Your task to perform on an android device: turn notification dots off Image 0: 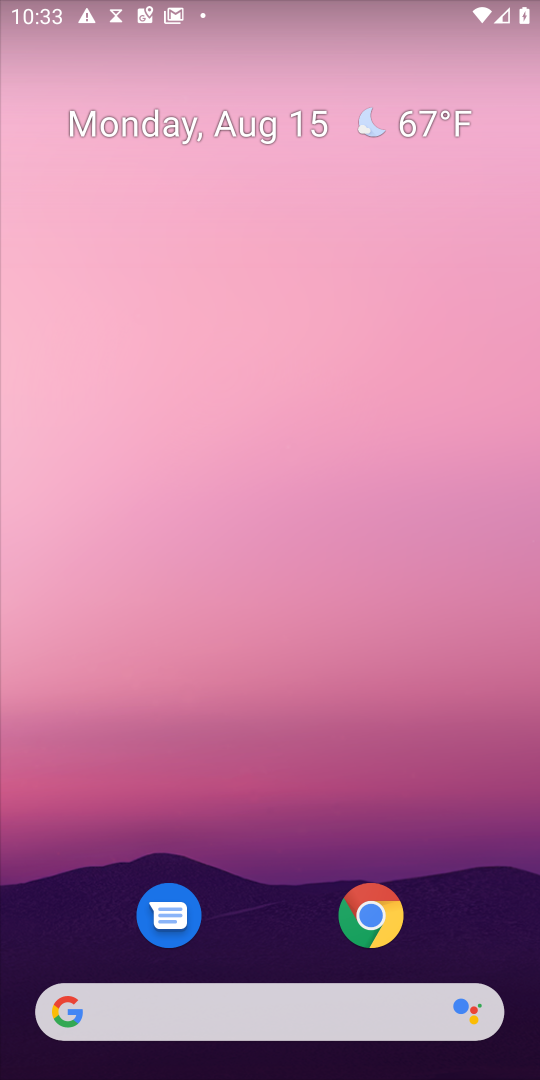
Step 0: press home button
Your task to perform on an android device: turn notification dots off Image 1: 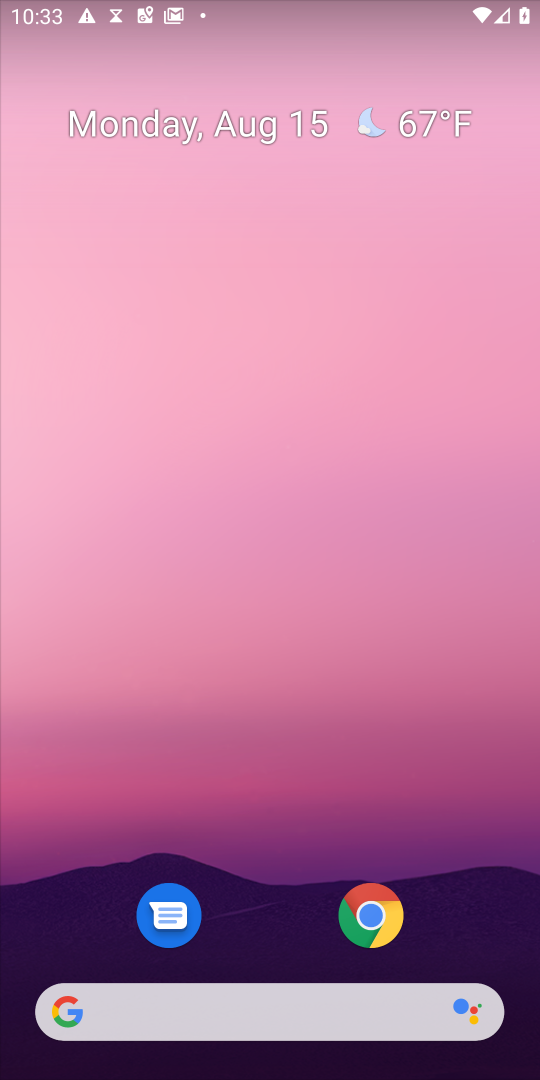
Step 1: drag from (272, 776) to (286, 241)
Your task to perform on an android device: turn notification dots off Image 2: 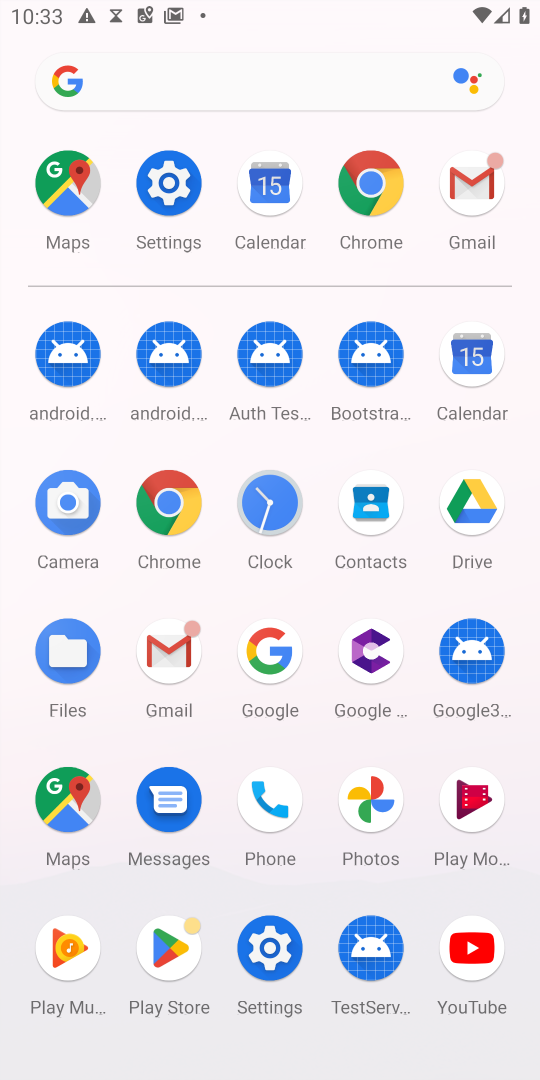
Step 2: click (164, 190)
Your task to perform on an android device: turn notification dots off Image 3: 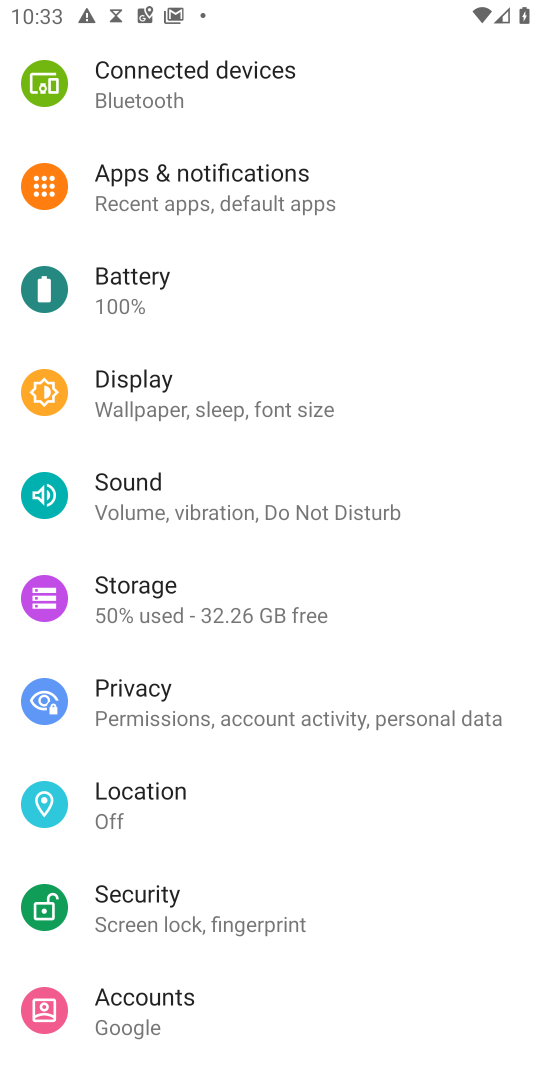
Step 3: click (164, 190)
Your task to perform on an android device: turn notification dots off Image 4: 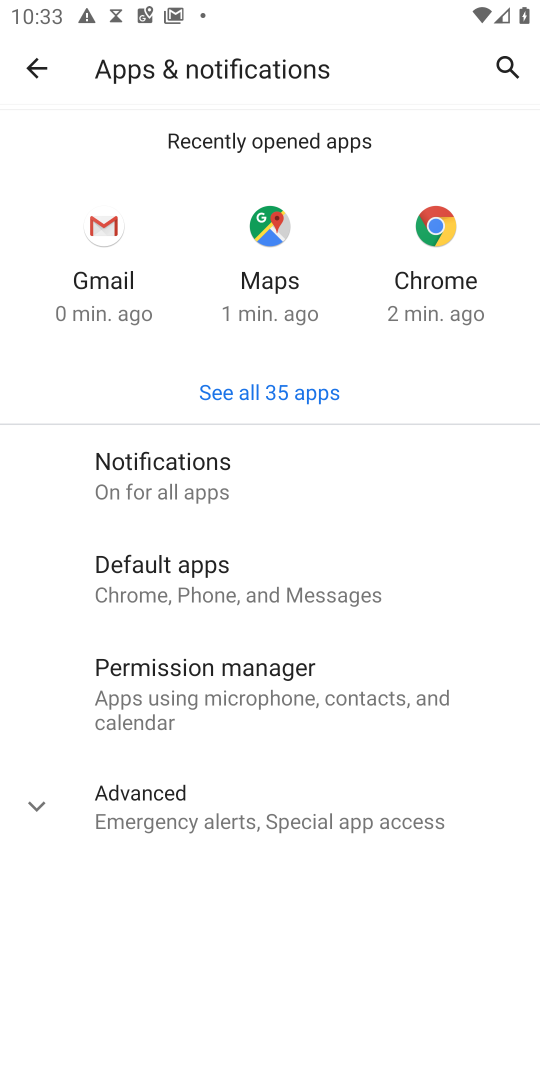
Step 4: click (186, 459)
Your task to perform on an android device: turn notification dots off Image 5: 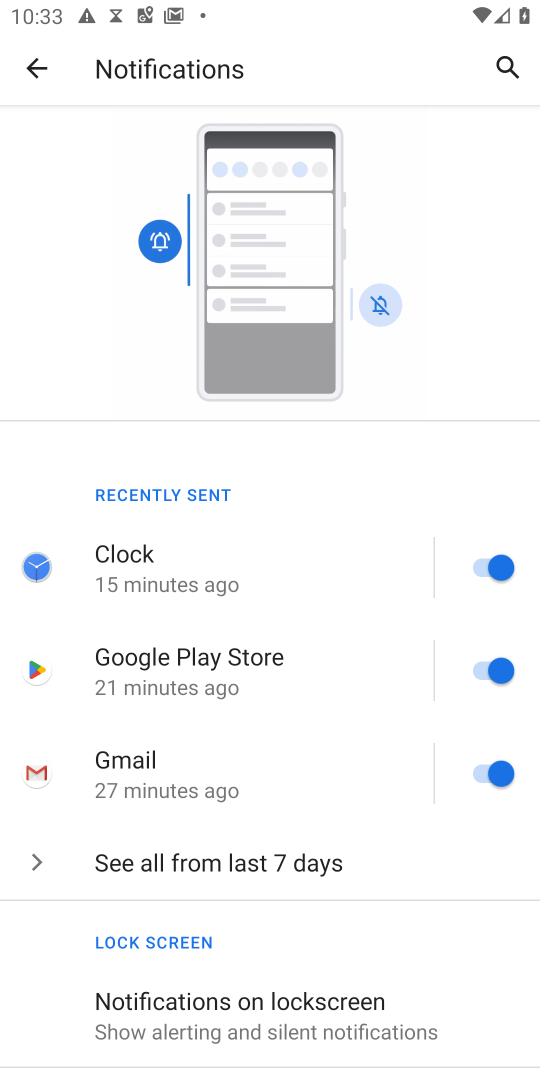
Step 5: drag from (367, 934) to (346, 378)
Your task to perform on an android device: turn notification dots off Image 6: 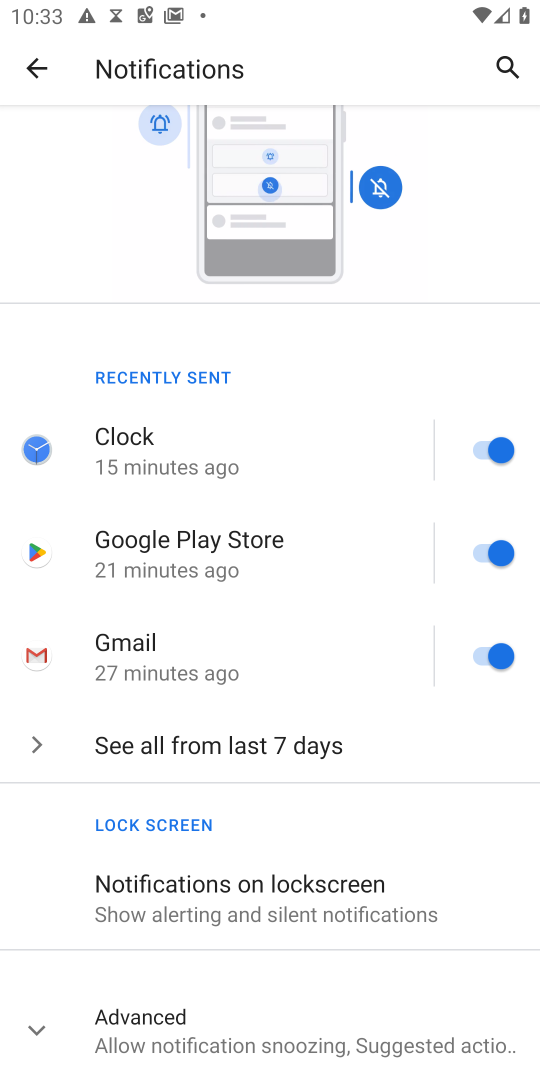
Step 6: click (157, 887)
Your task to perform on an android device: turn notification dots off Image 7: 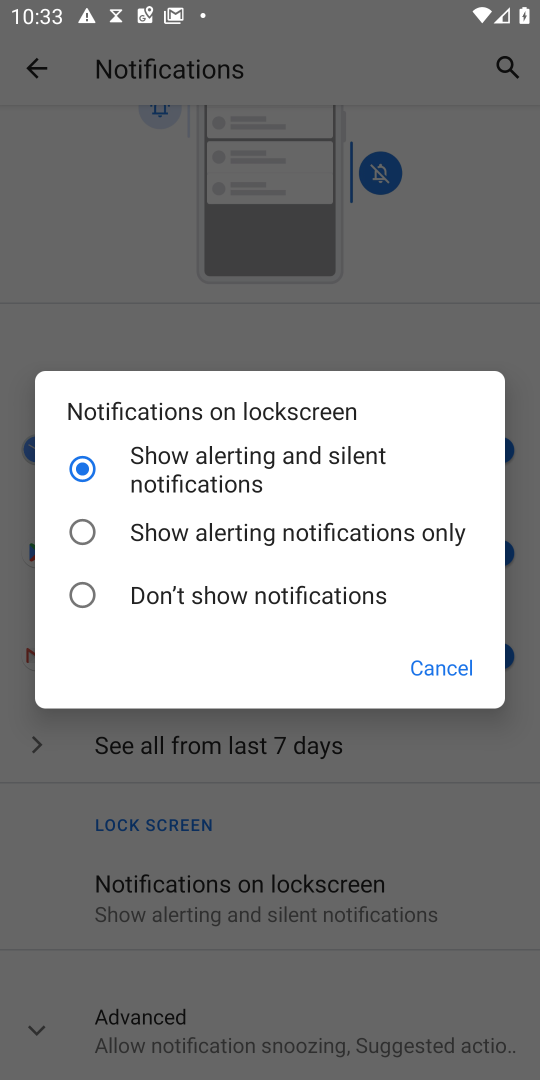
Step 7: click (199, 830)
Your task to perform on an android device: turn notification dots off Image 8: 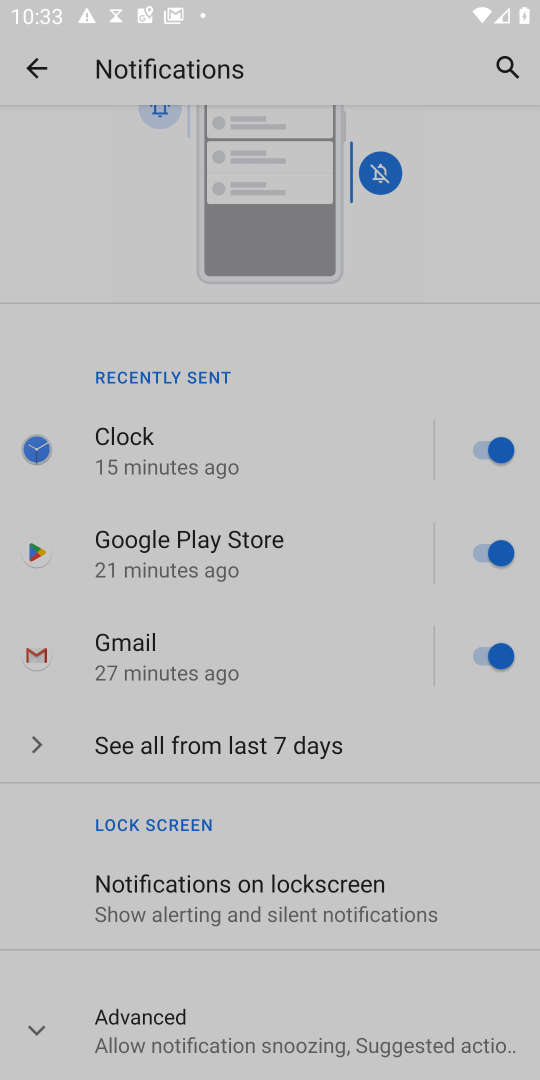
Step 8: click (469, 669)
Your task to perform on an android device: turn notification dots off Image 9: 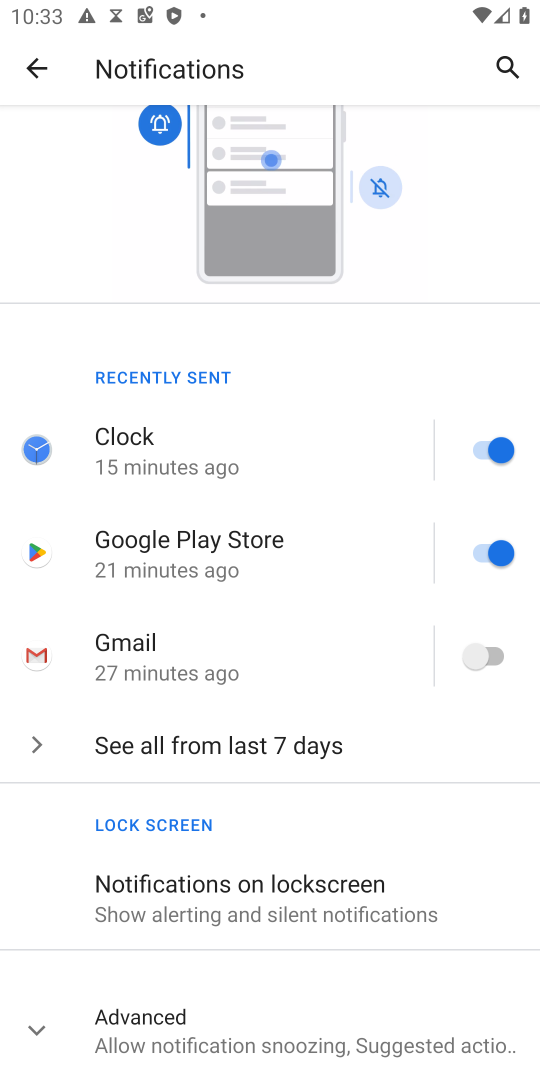
Step 9: click (45, 1027)
Your task to perform on an android device: turn notification dots off Image 10: 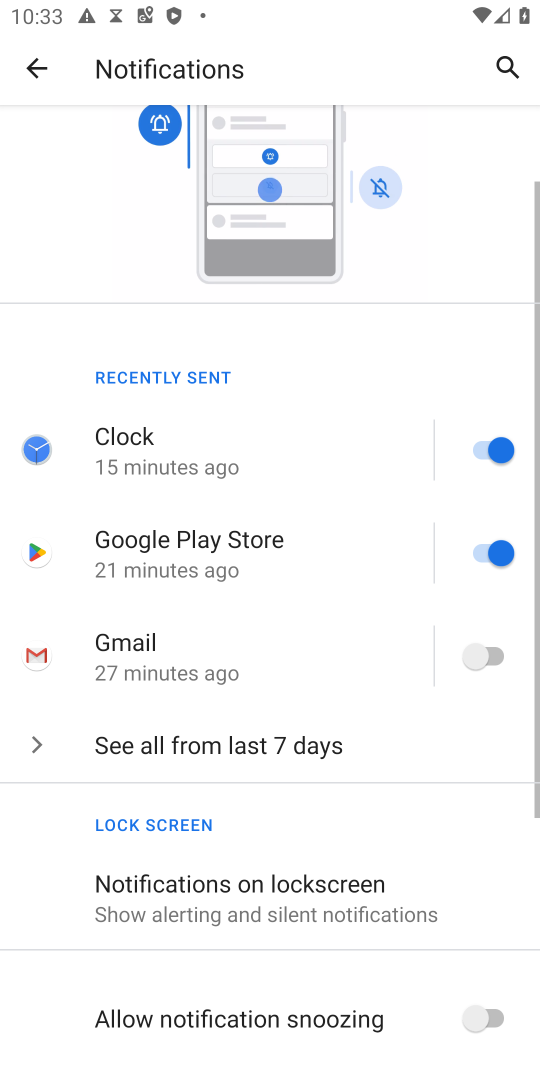
Step 10: drag from (338, 927) to (410, 423)
Your task to perform on an android device: turn notification dots off Image 11: 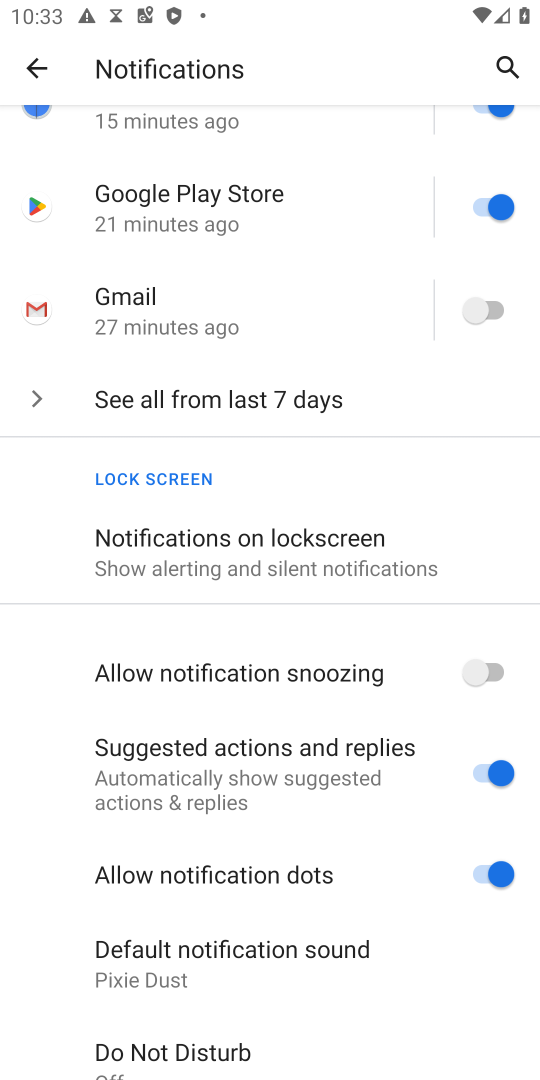
Step 11: click (495, 867)
Your task to perform on an android device: turn notification dots off Image 12: 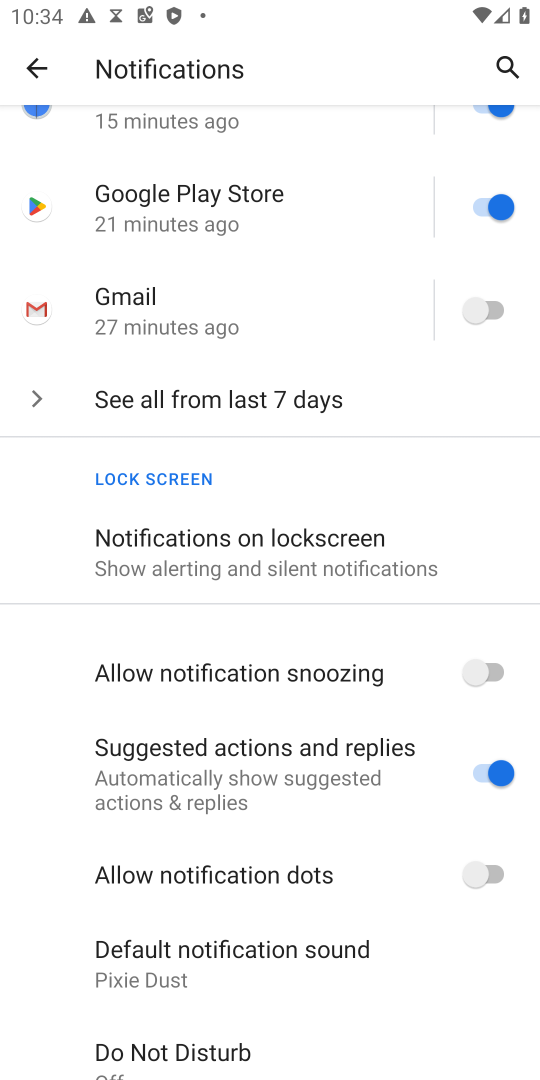
Step 12: task complete